Your task to perform on an android device: Open privacy settings Image 0: 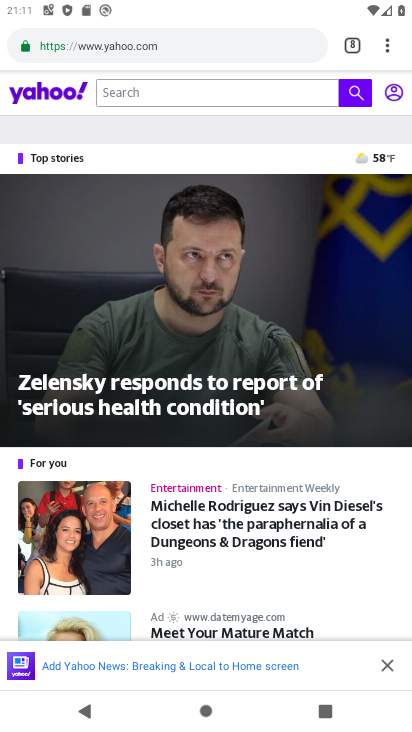
Step 0: press home button
Your task to perform on an android device: Open privacy settings Image 1: 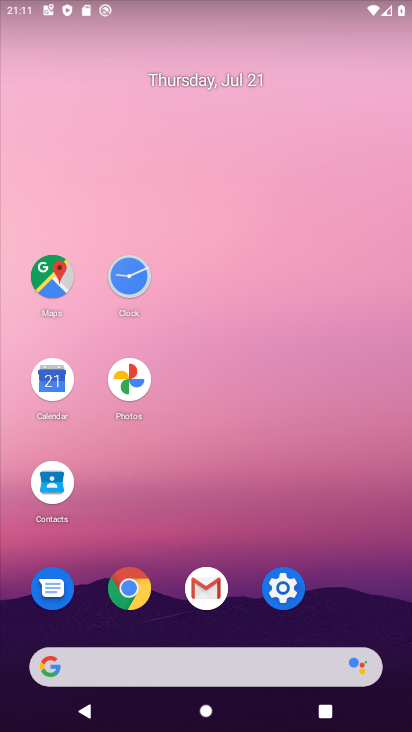
Step 1: click (284, 597)
Your task to perform on an android device: Open privacy settings Image 2: 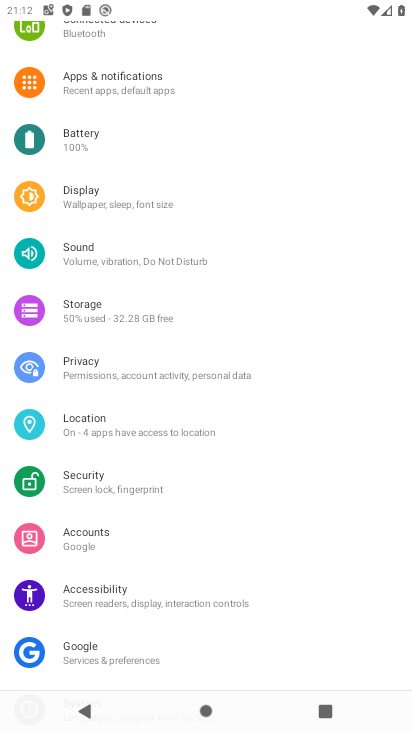
Step 2: click (88, 359)
Your task to perform on an android device: Open privacy settings Image 3: 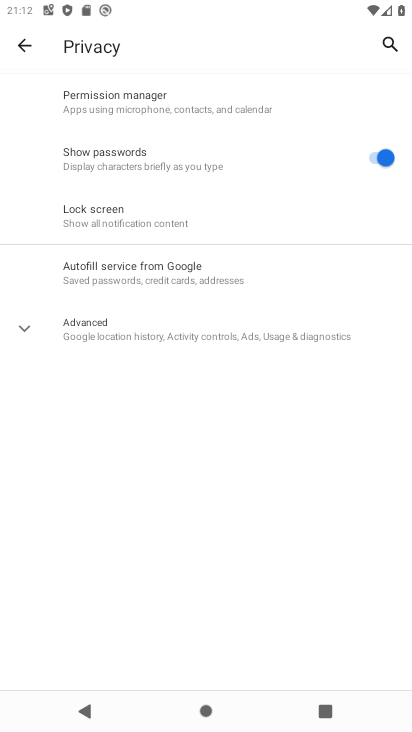
Step 3: task complete